Your task to perform on an android device: turn off translation in the chrome app Image 0: 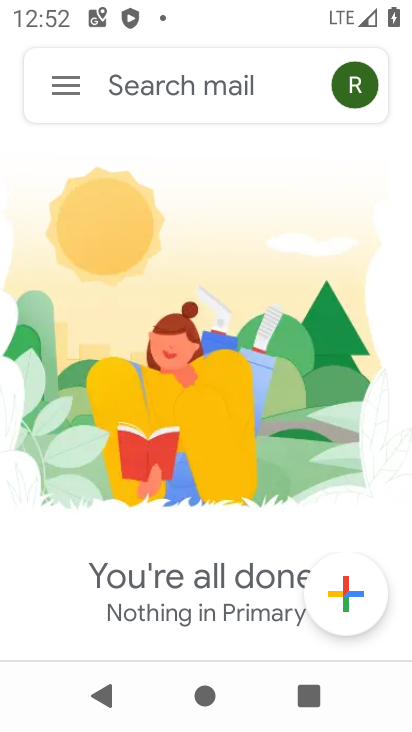
Step 0: press home button
Your task to perform on an android device: turn off translation in the chrome app Image 1: 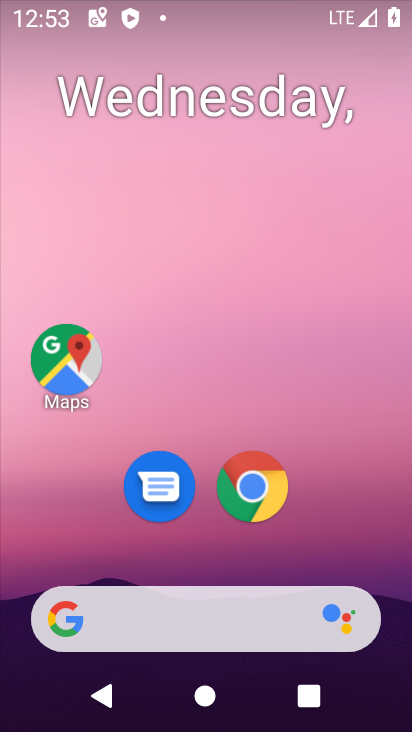
Step 1: drag from (374, 550) to (345, 75)
Your task to perform on an android device: turn off translation in the chrome app Image 2: 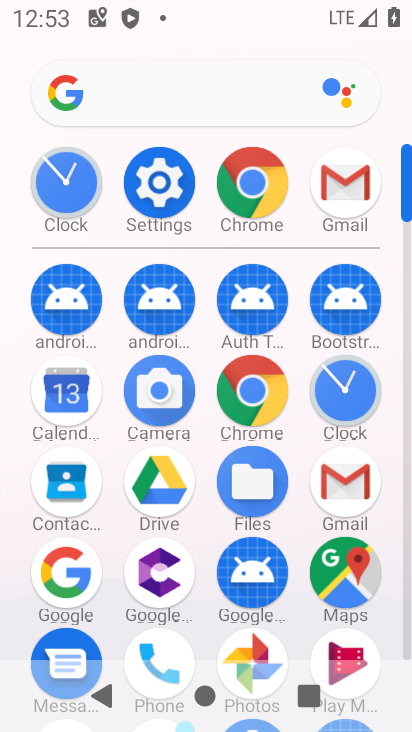
Step 2: click (255, 385)
Your task to perform on an android device: turn off translation in the chrome app Image 3: 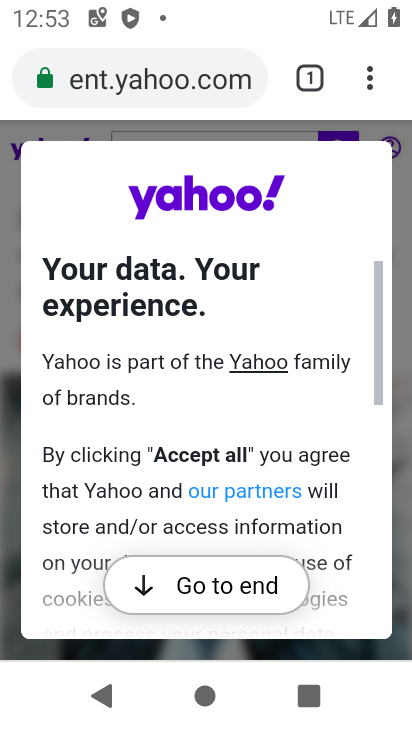
Step 3: click (369, 82)
Your task to perform on an android device: turn off translation in the chrome app Image 4: 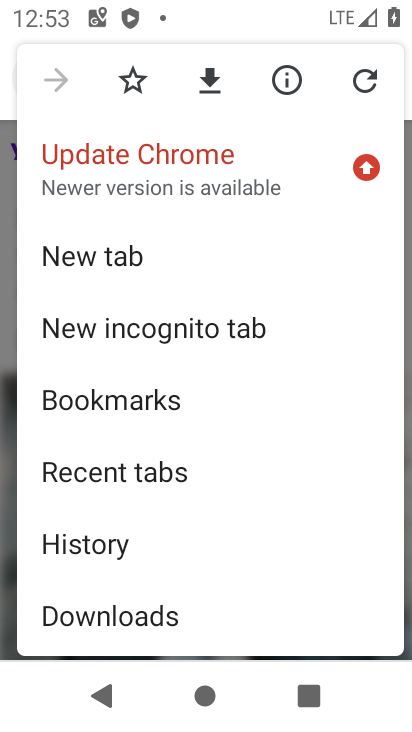
Step 4: drag from (278, 435) to (292, 353)
Your task to perform on an android device: turn off translation in the chrome app Image 5: 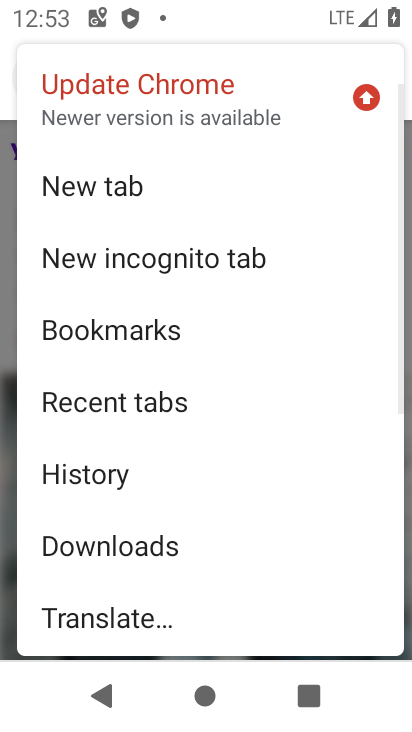
Step 5: drag from (316, 438) to (321, 313)
Your task to perform on an android device: turn off translation in the chrome app Image 6: 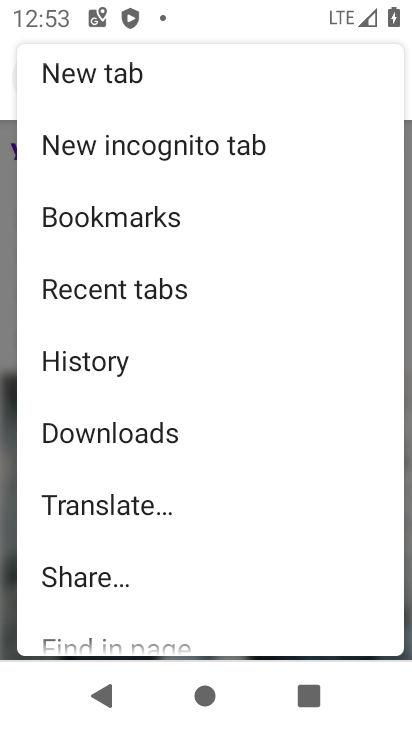
Step 6: drag from (319, 442) to (320, 251)
Your task to perform on an android device: turn off translation in the chrome app Image 7: 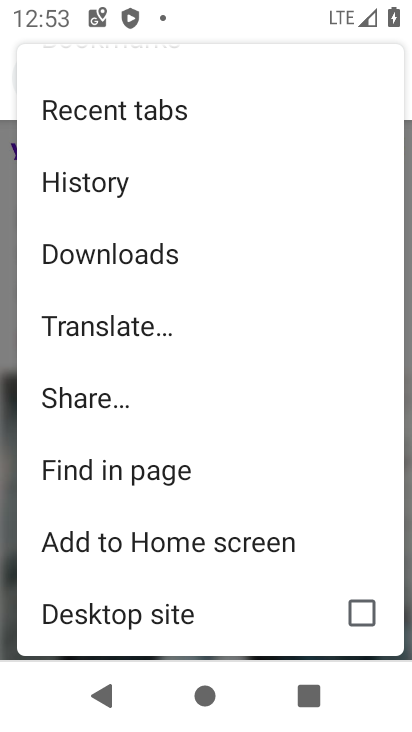
Step 7: drag from (318, 464) to (322, 235)
Your task to perform on an android device: turn off translation in the chrome app Image 8: 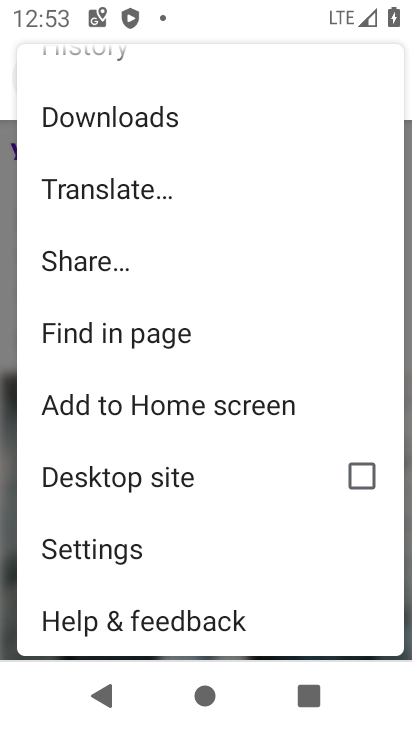
Step 8: click (197, 571)
Your task to perform on an android device: turn off translation in the chrome app Image 9: 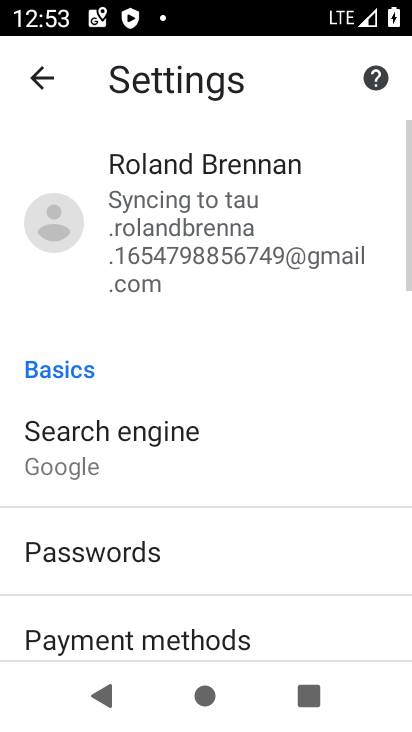
Step 9: drag from (341, 505) to (342, 337)
Your task to perform on an android device: turn off translation in the chrome app Image 10: 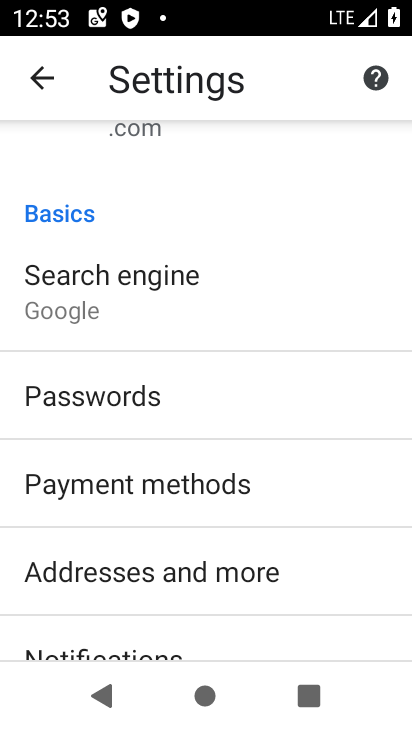
Step 10: drag from (345, 528) to (329, 346)
Your task to perform on an android device: turn off translation in the chrome app Image 11: 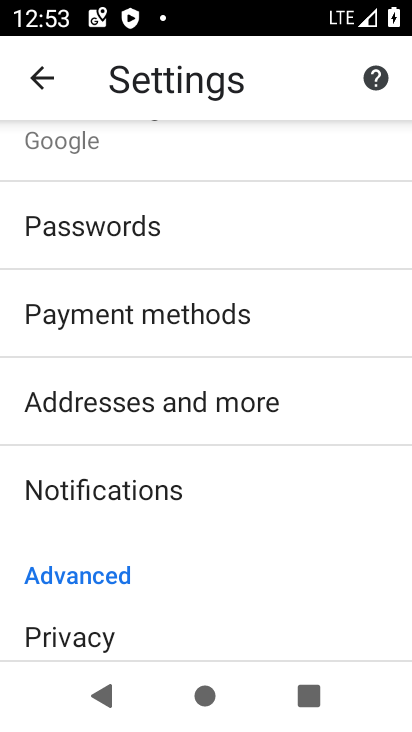
Step 11: drag from (330, 554) to (328, 402)
Your task to perform on an android device: turn off translation in the chrome app Image 12: 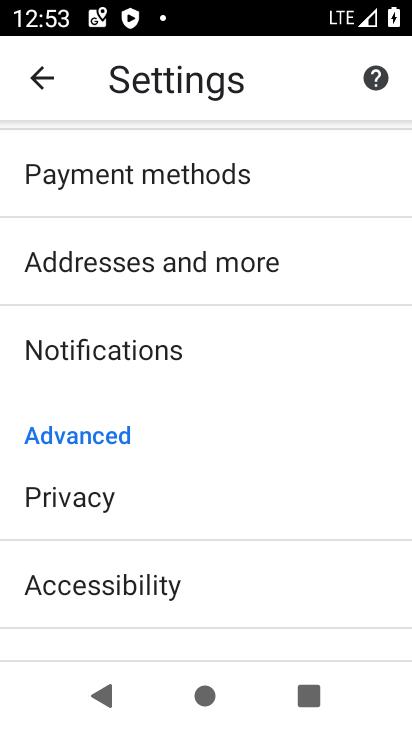
Step 12: drag from (331, 533) to (340, 267)
Your task to perform on an android device: turn off translation in the chrome app Image 13: 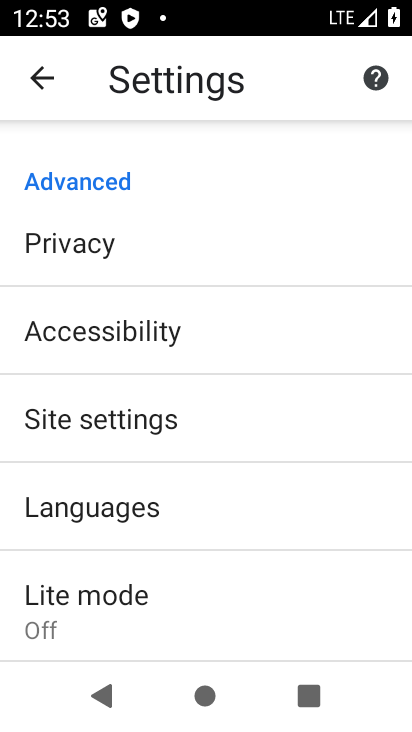
Step 13: drag from (283, 525) to (292, 233)
Your task to perform on an android device: turn off translation in the chrome app Image 14: 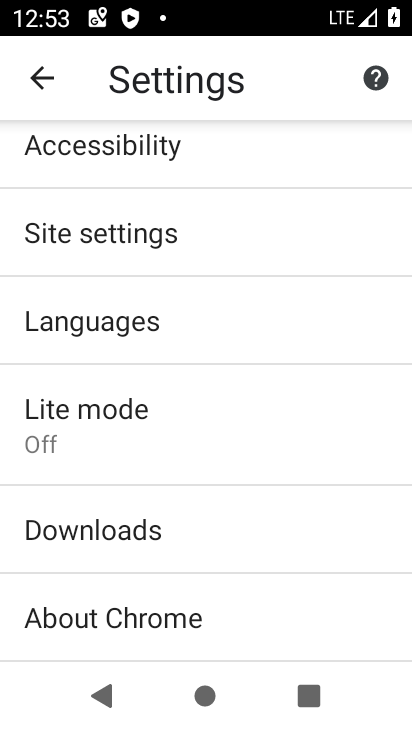
Step 14: click (238, 327)
Your task to perform on an android device: turn off translation in the chrome app Image 15: 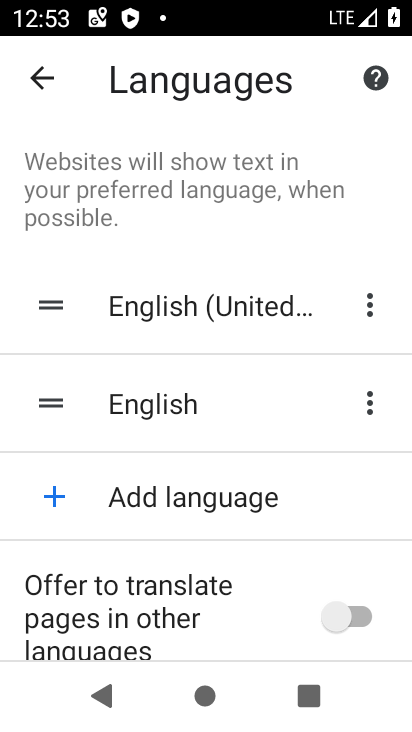
Step 15: task complete